Your task to perform on an android device: find photos in the google photos app Image 0: 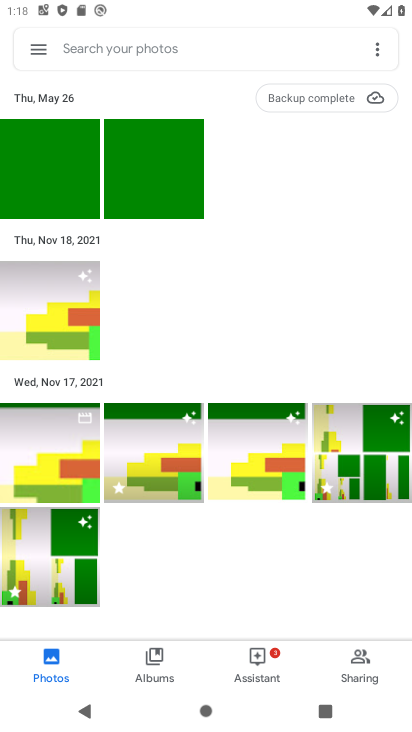
Step 0: press home button
Your task to perform on an android device: find photos in the google photos app Image 1: 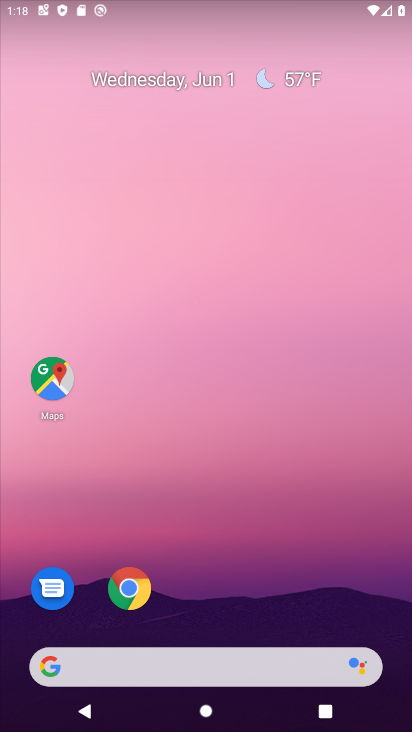
Step 1: drag from (330, 555) to (182, 5)
Your task to perform on an android device: find photos in the google photos app Image 2: 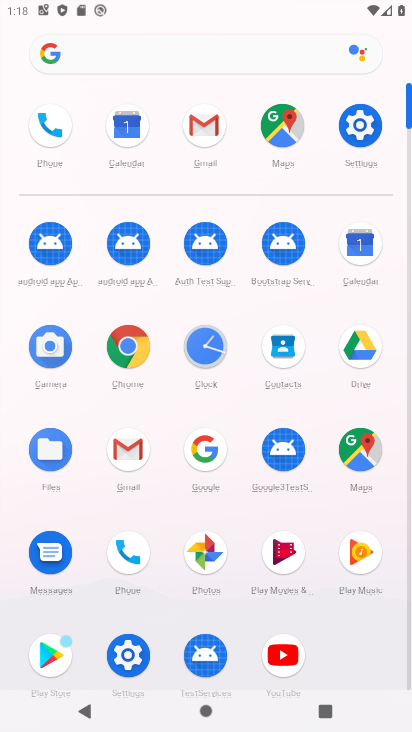
Step 2: click (213, 547)
Your task to perform on an android device: find photos in the google photos app Image 3: 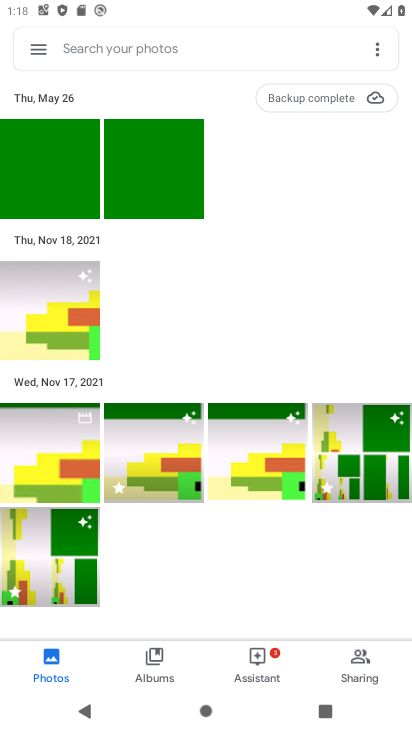
Step 3: task complete